Your task to perform on an android device: open the mobile data screen to see how much data has been used Image 0: 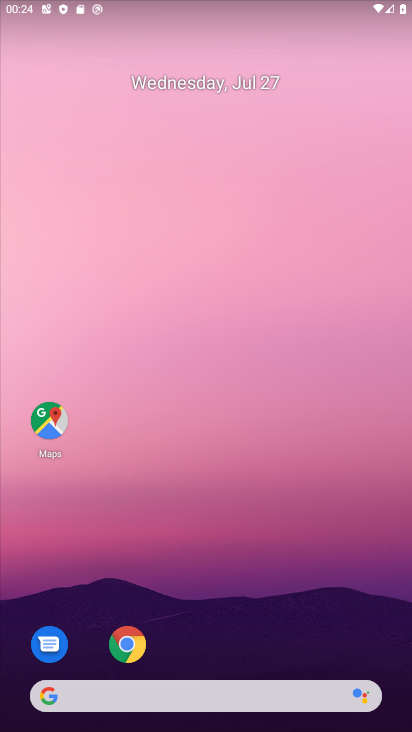
Step 0: click (257, 69)
Your task to perform on an android device: open the mobile data screen to see how much data has been used Image 1: 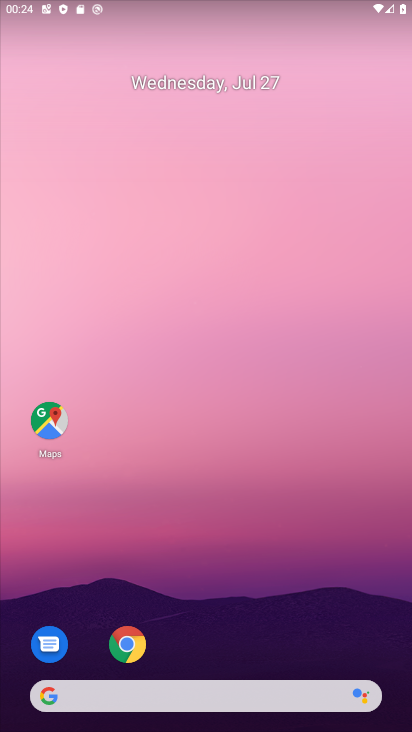
Step 1: drag from (226, 442) to (222, 157)
Your task to perform on an android device: open the mobile data screen to see how much data has been used Image 2: 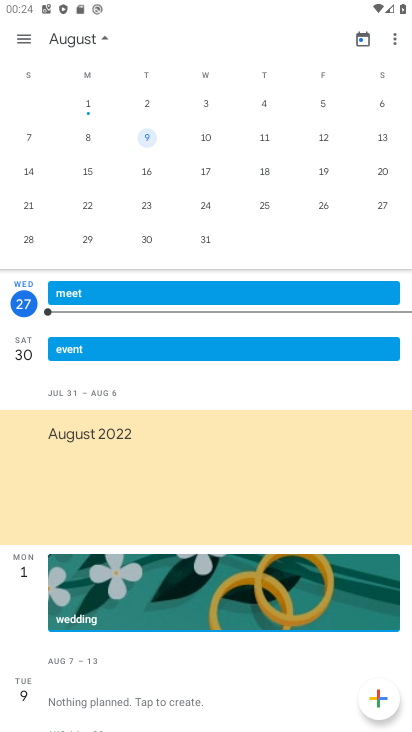
Step 2: press back button
Your task to perform on an android device: open the mobile data screen to see how much data has been used Image 3: 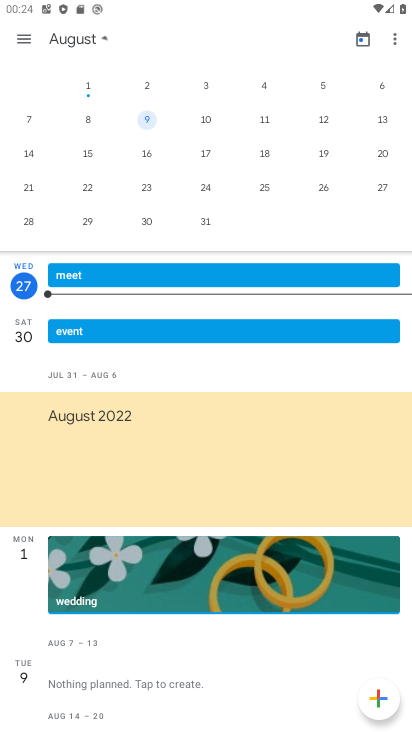
Step 3: press back button
Your task to perform on an android device: open the mobile data screen to see how much data has been used Image 4: 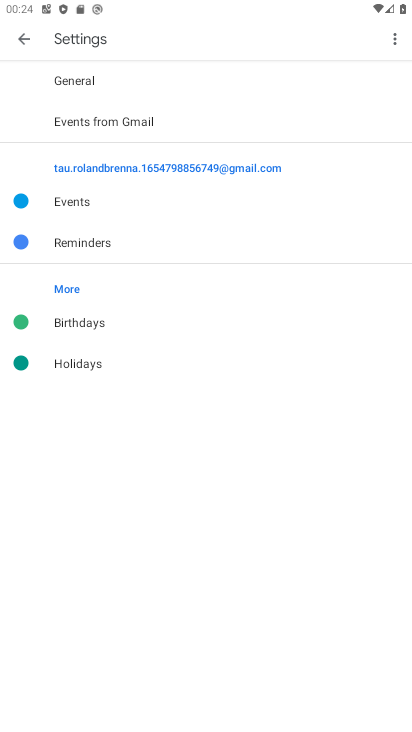
Step 4: click (19, 40)
Your task to perform on an android device: open the mobile data screen to see how much data has been used Image 5: 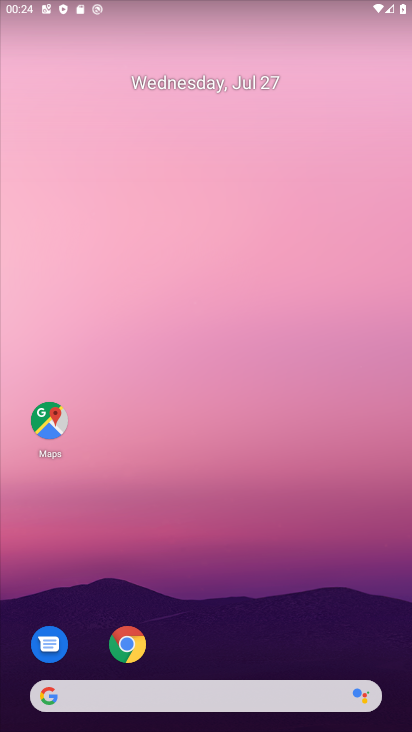
Step 5: drag from (144, 544) to (134, 168)
Your task to perform on an android device: open the mobile data screen to see how much data has been used Image 6: 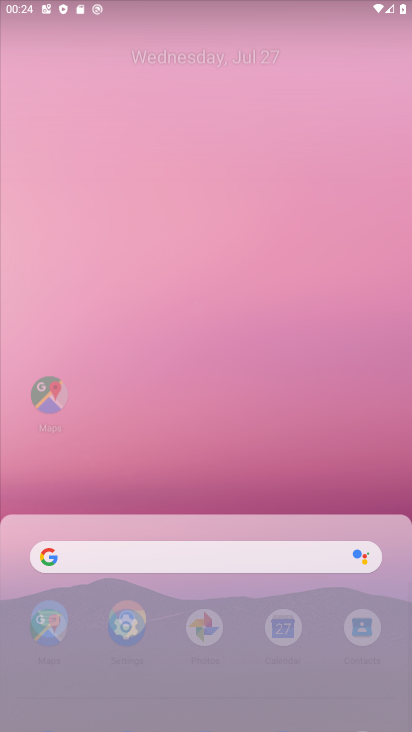
Step 6: drag from (168, 388) to (207, 41)
Your task to perform on an android device: open the mobile data screen to see how much data has been used Image 7: 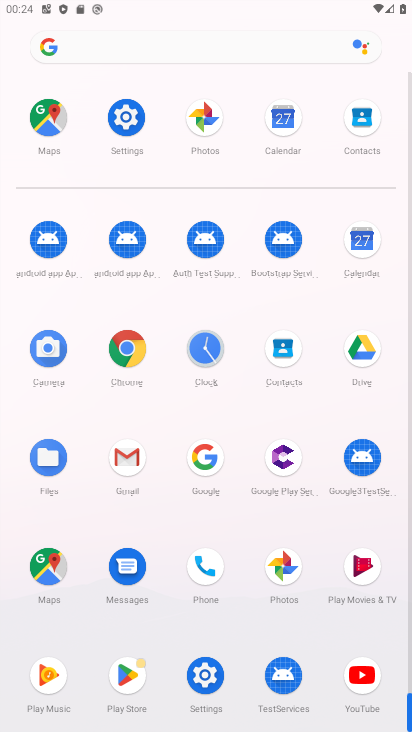
Step 7: click (124, 115)
Your task to perform on an android device: open the mobile data screen to see how much data has been used Image 8: 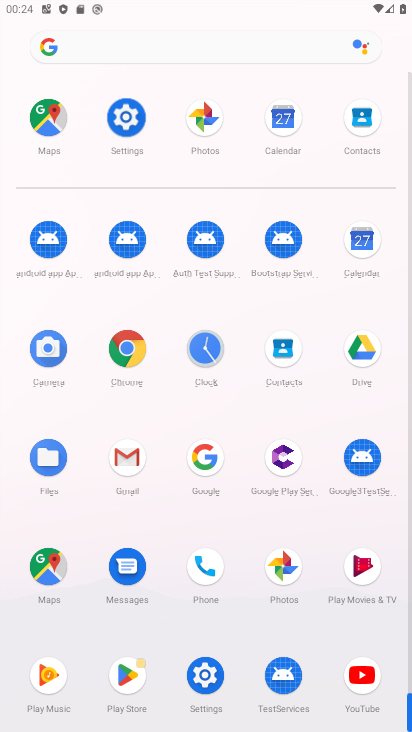
Step 8: click (124, 112)
Your task to perform on an android device: open the mobile data screen to see how much data has been used Image 9: 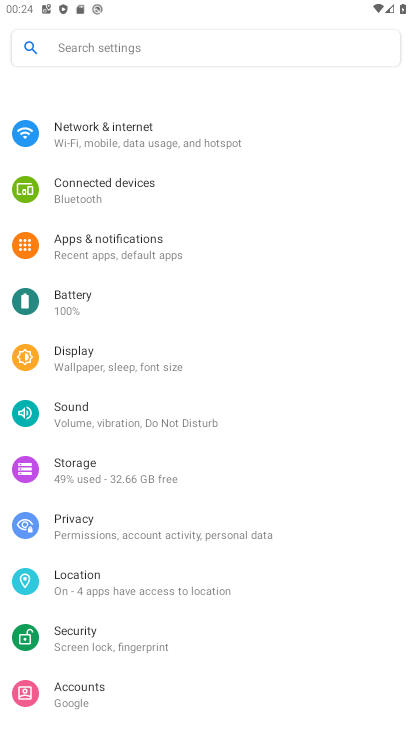
Step 9: click (123, 111)
Your task to perform on an android device: open the mobile data screen to see how much data has been used Image 10: 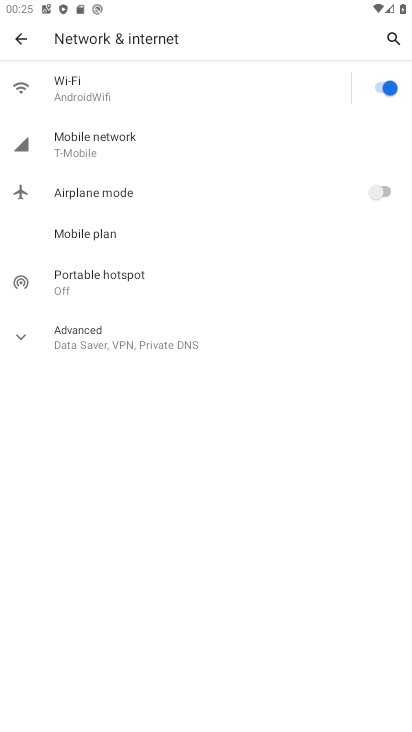
Step 10: click (81, 145)
Your task to perform on an android device: open the mobile data screen to see how much data has been used Image 11: 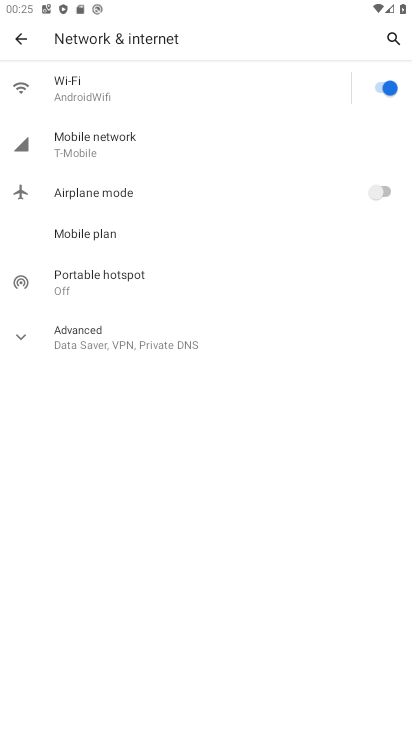
Step 11: click (81, 145)
Your task to perform on an android device: open the mobile data screen to see how much data has been used Image 12: 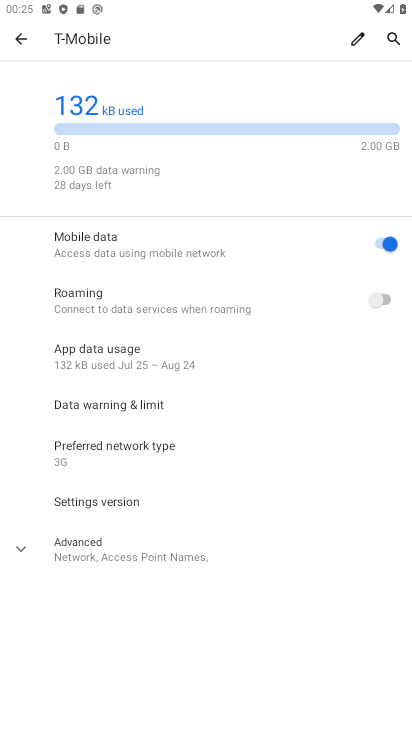
Step 12: task complete